Your task to perform on an android device: refresh tabs in the chrome app Image 0: 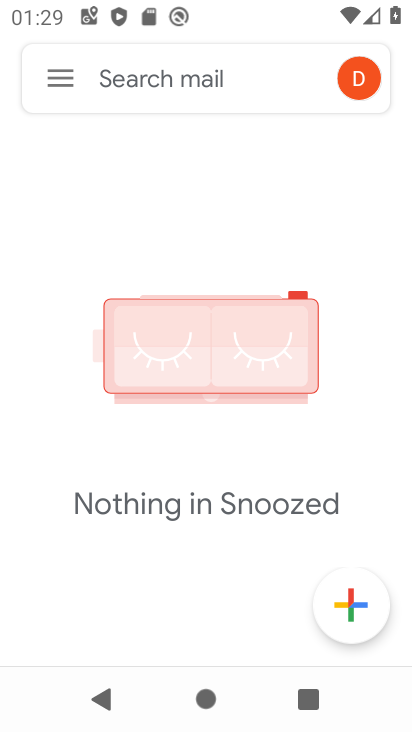
Step 0: press home button
Your task to perform on an android device: refresh tabs in the chrome app Image 1: 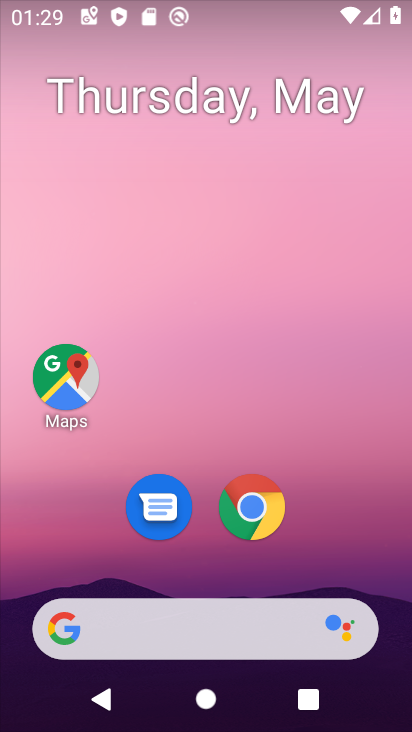
Step 1: click (264, 508)
Your task to perform on an android device: refresh tabs in the chrome app Image 2: 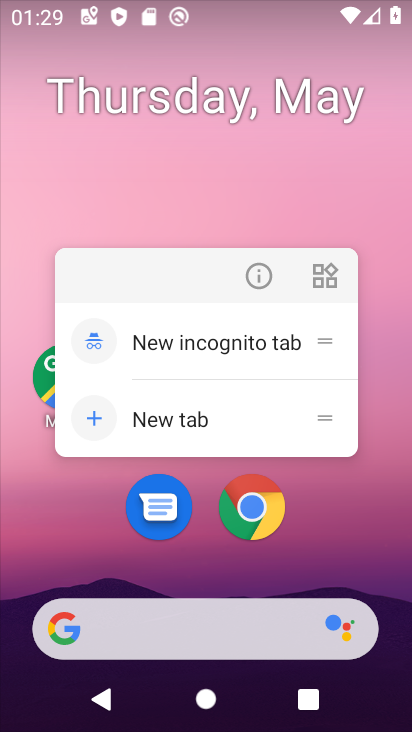
Step 2: click (297, 533)
Your task to perform on an android device: refresh tabs in the chrome app Image 3: 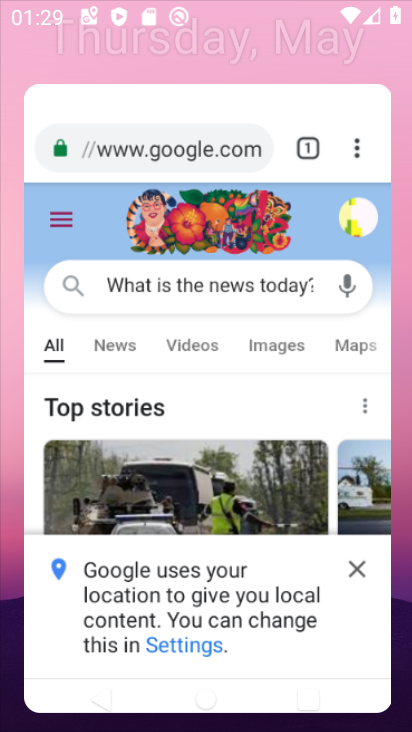
Step 3: click (248, 494)
Your task to perform on an android device: refresh tabs in the chrome app Image 4: 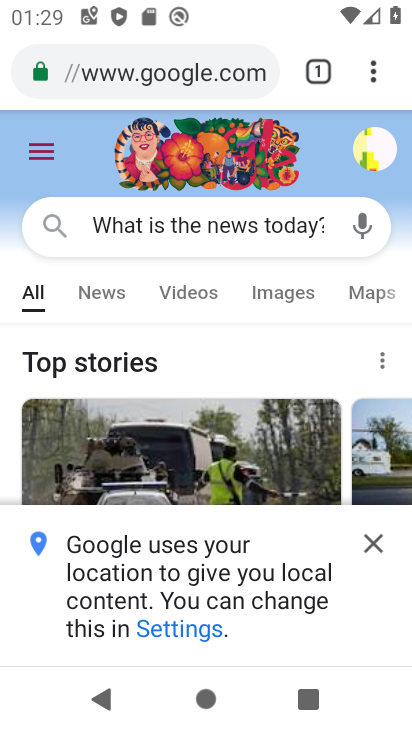
Step 4: click (374, 76)
Your task to perform on an android device: refresh tabs in the chrome app Image 5: 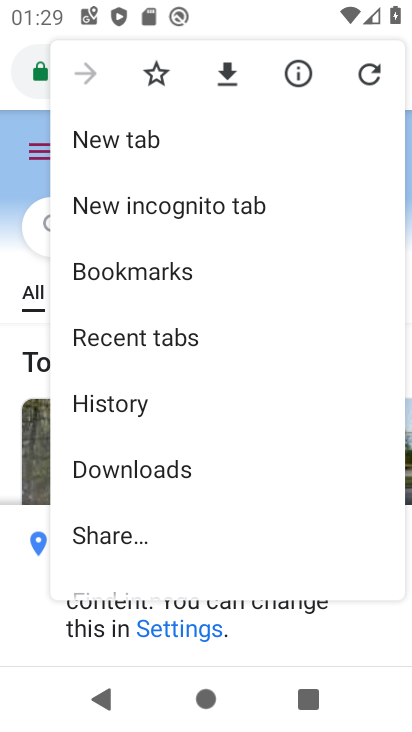
Step 5: click (369, 68)
Your task to perform on an android device: refresh tabs in the chrome app Image 6: 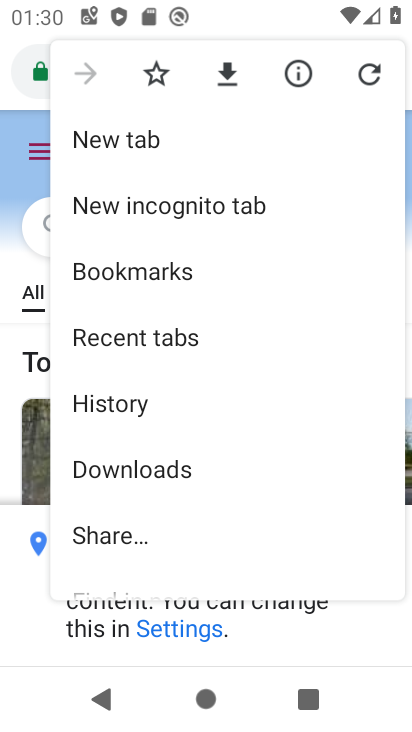
Step 6: task complete